Your task to perform on an android device: Go to Maps Image 0: 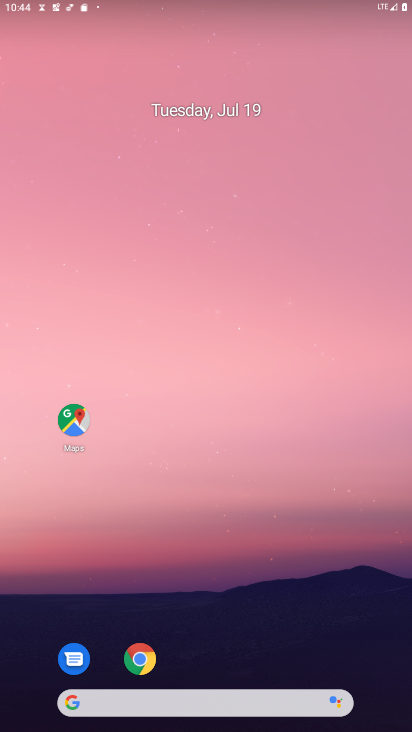
Step 0: drag from (305, 202) to (349, 80)
Your task to perform on an android device: Go to Maps Image 1: 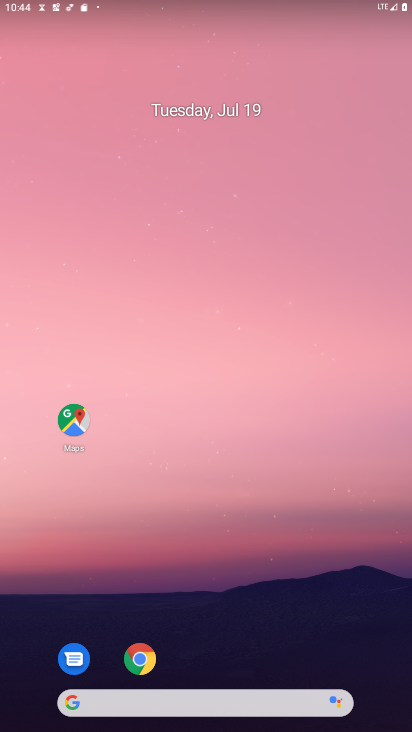
Step 1: drag from (187, 675) to (296, 84)
Your task to perform on an android device: Go to Maps Image 2: 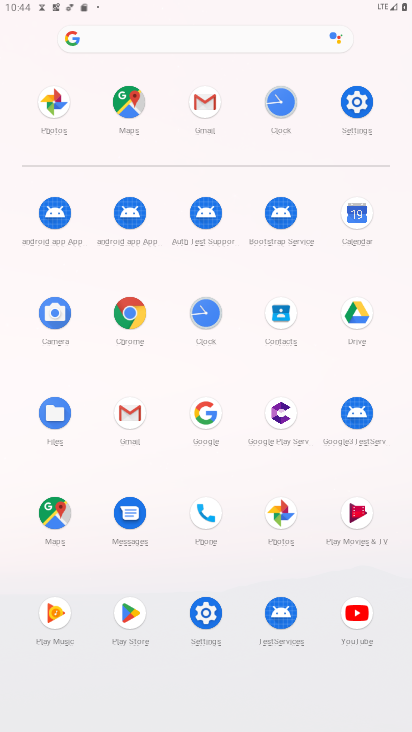
Step 2: click (54, 515)
Your task to perform on an android device: Go to Maps Image 3: 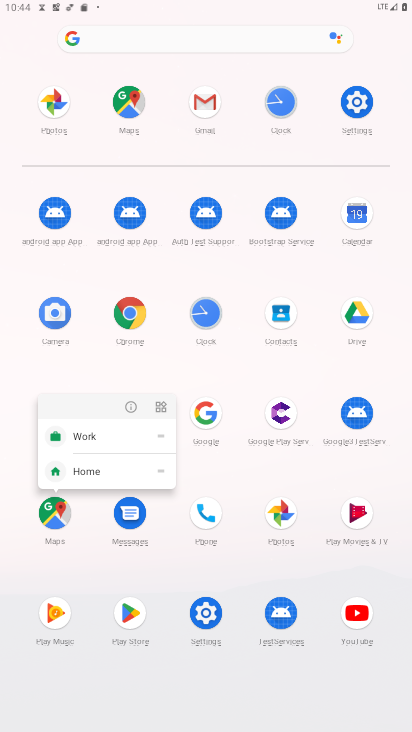
Step 3: click (127, 409)
Your task to perform on an android device: Go to Maps Image 4: 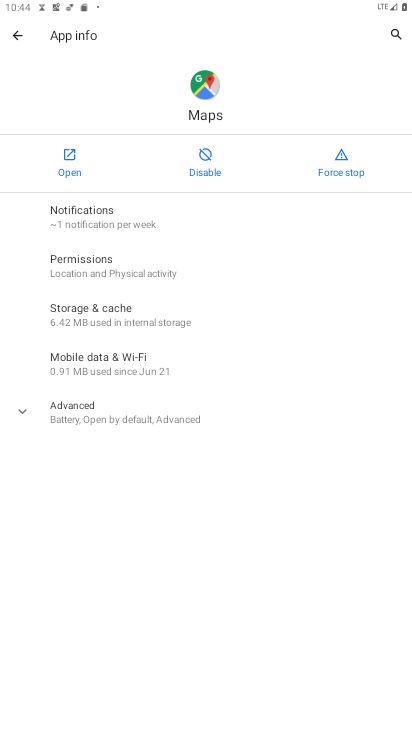
Step 4: click (65, 161)
Your task to perform on an android device: Go to Maps Image 5: 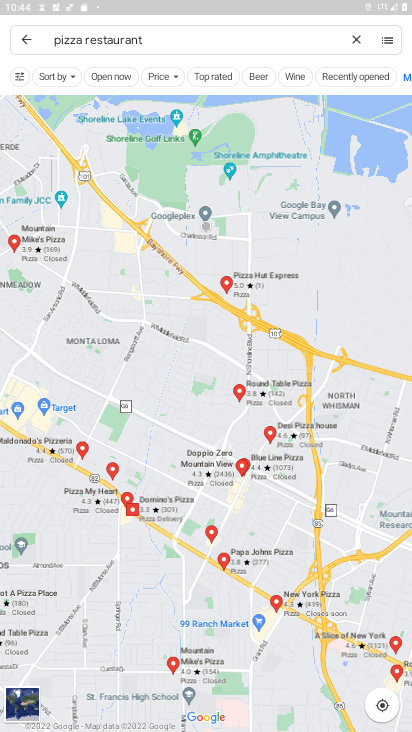
Step 5: task complete